Your task to perform on an android device: Search for vegetarian restaurants on Maps Image 0: 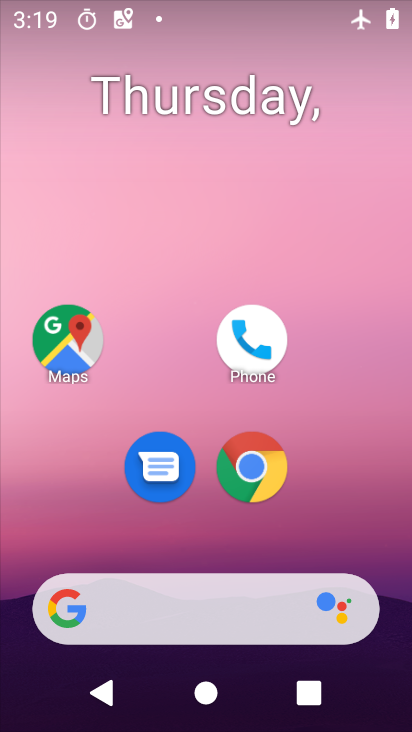
Step 0: drag from (219, 544) to (219, 249)
Your task to perform on an android device: Search for vegetarian restaurants on Maps Image 1: 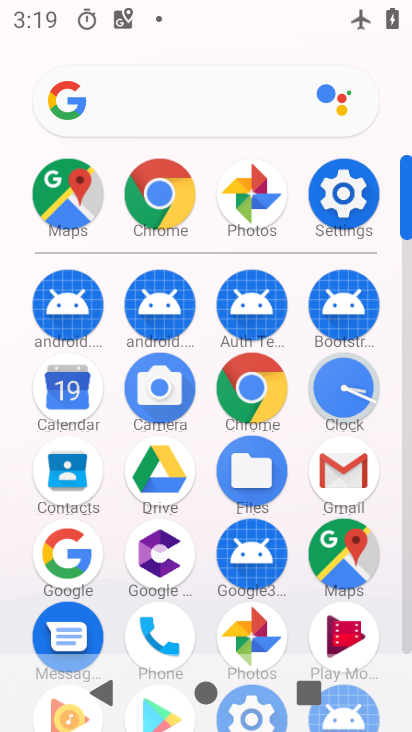
Step 1: click (384, 525)
Your task to perform on an android device: Search for vegetarian restaurants on Maps Image 2: 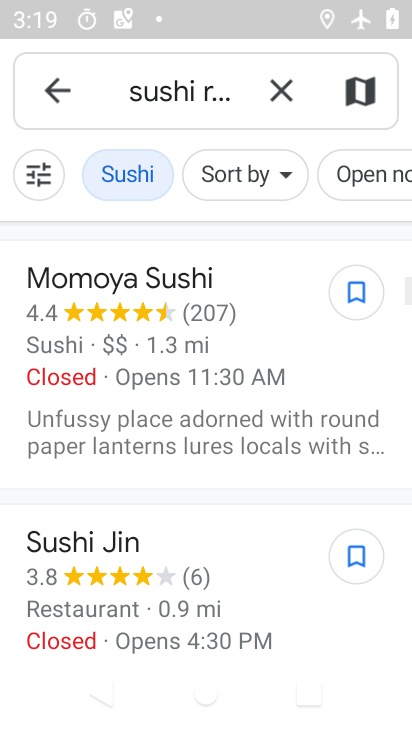
Step 2: click (280, 93)
Your task to perform on an android device: Search for vegetarian restaurants on Maps Image 3: 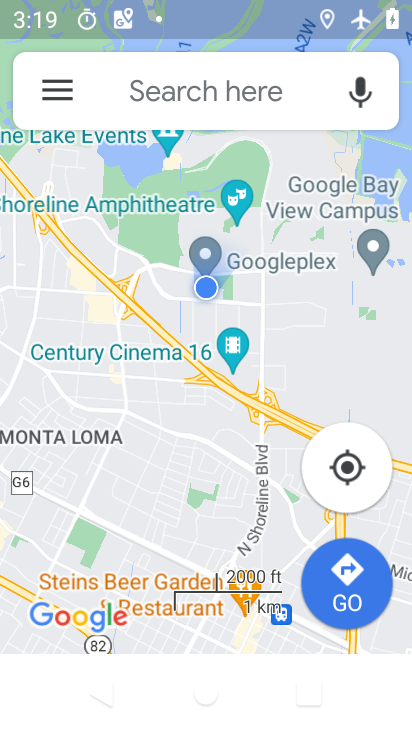
Step 3: click (228, 92)
Your task to perform on an android device: Search for vegetarian restaurants on Maps Image 4: 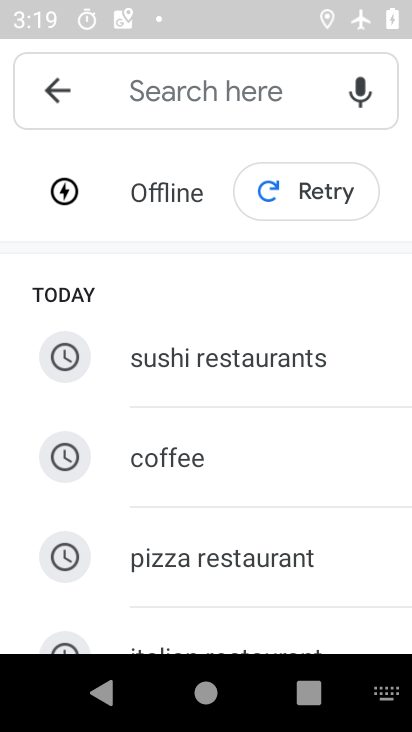
Step 4: drag from (200, 526) to (232, 228)
Your task to perform on an android device: Search for vegetarian restaurants on Maps Image 5: 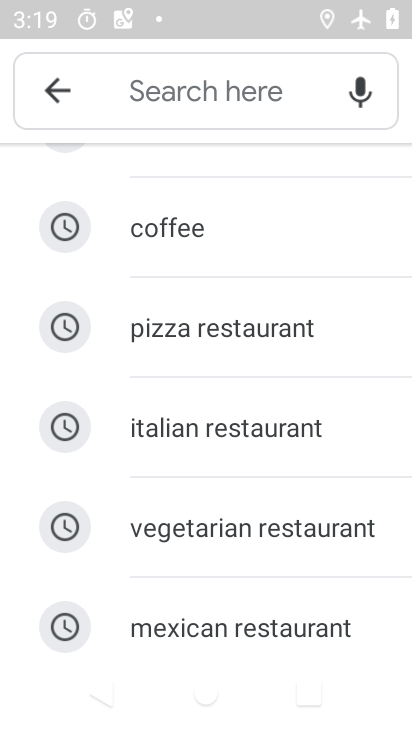
Step 5: click (243, 535)
Your task to perform on an android device: Search for vegetarian restaurants on Maps Image 6: 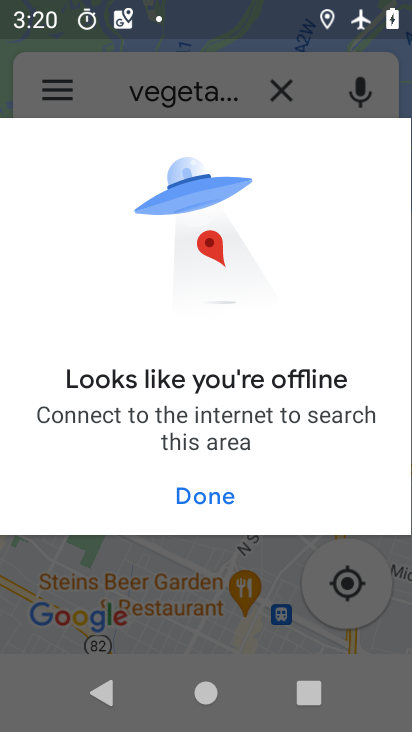
Step 6: click (209, 516)
Your task to perform on an android device: Search for vegetarian restaurants on Maps Image 7: 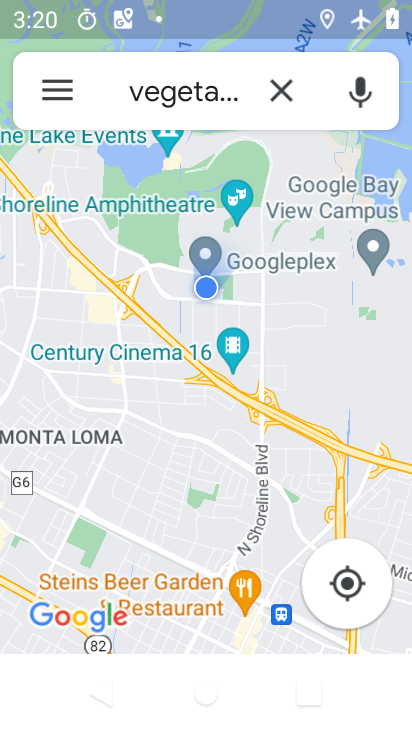
Step 7: task complete